Your task to perform on an android device: Open wifi settings Image 0: 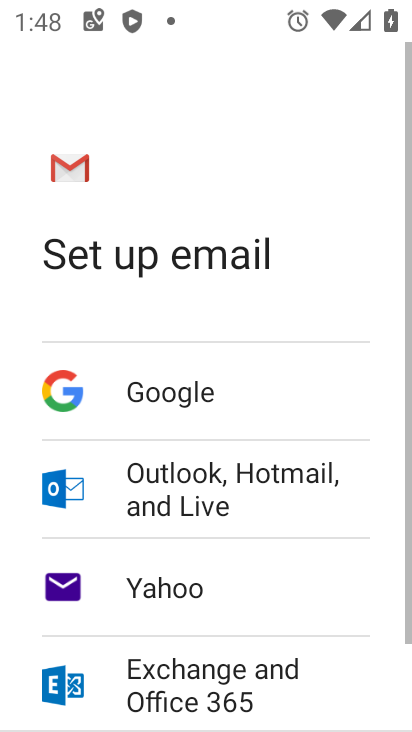
Step 0: press home button
Your task to perform on an android device: Open wifi settings Image 1: 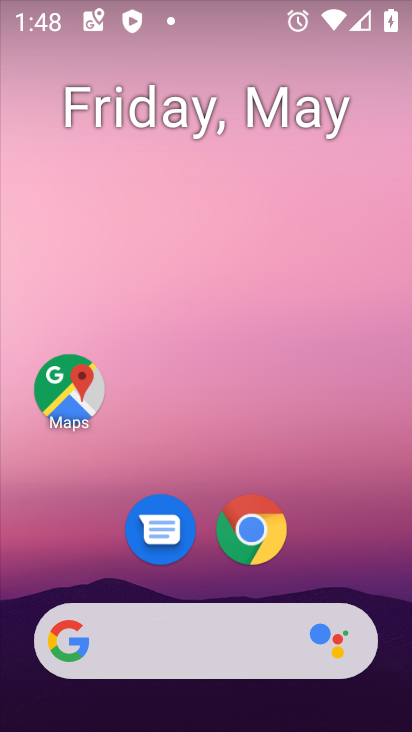
Step 1: drag from (395, 693) to (365, 253)
Your task to perform on an android device: Open wifi settings Image 2: 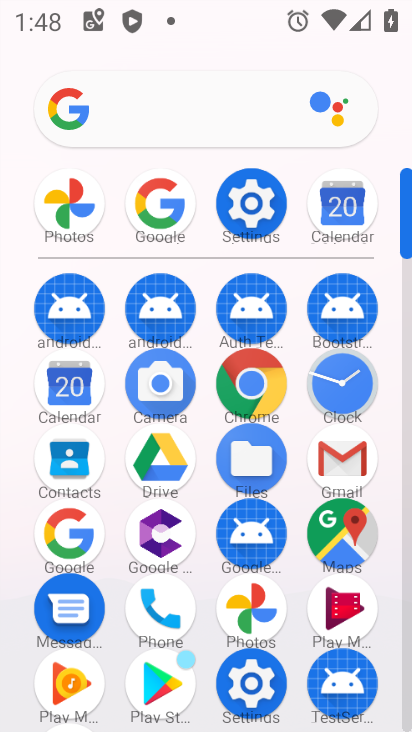
Step 2: click (248, 202)
Your task to perform on an android device: Open wifi settings Image 3: 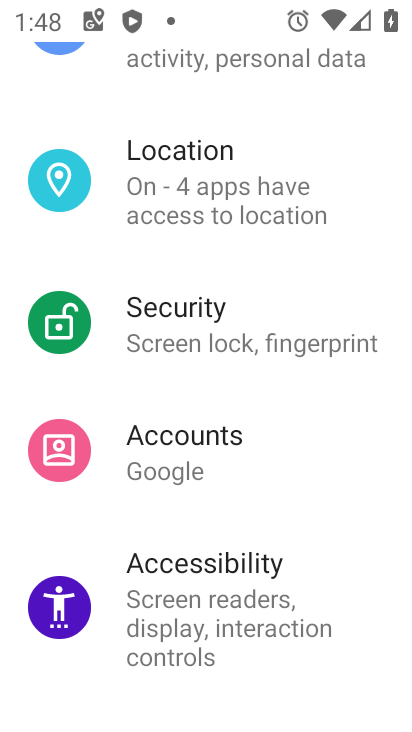
Step 3: drag from (323, 148) to (316, 539)
Your task to perform on an android device: Open wifi settings Image 4: 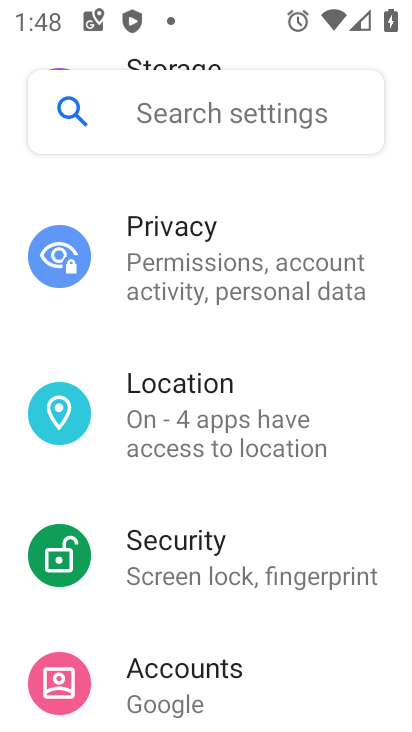
Step 4: drag from (320, 267) to (335, 717)
Your task to perform on an android device: Open wifi settings Image 5: 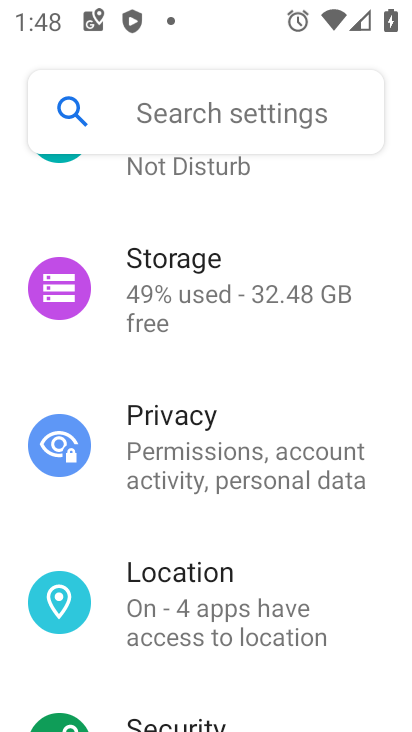
Step 5: drag from (351, 166) to (374, 719)
Your task to perform on an android device: Open wifi settings Image 6: 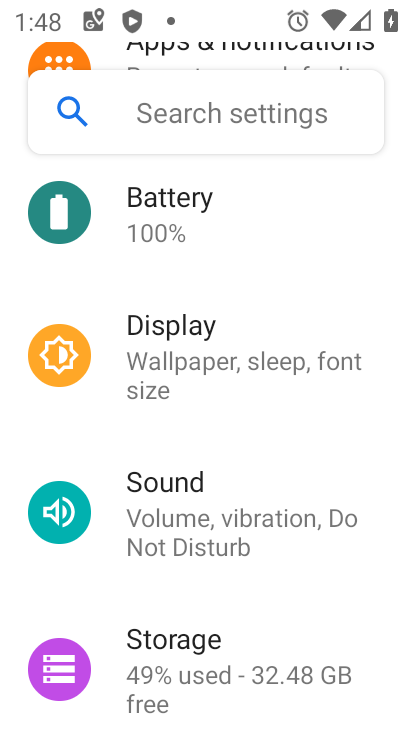
Step 6: drag from (297, 181) to (352, 711)
Your task to perform on an android device: Open wifi settings Image 7: 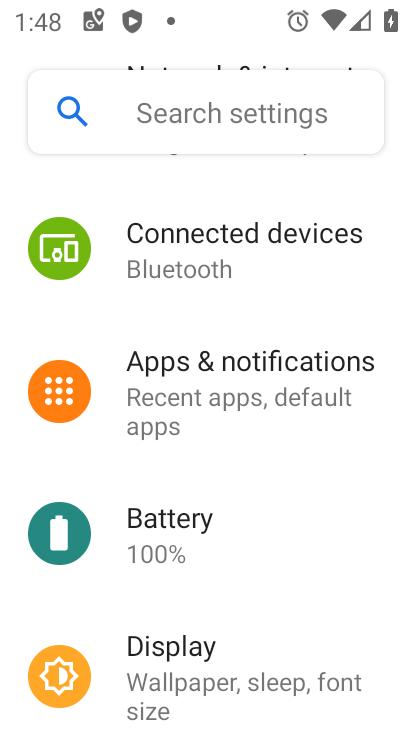
Step 7: drag from (300, 176) to (372, 707)
Your task to perform on an android device: Open wifi settings Image 8: 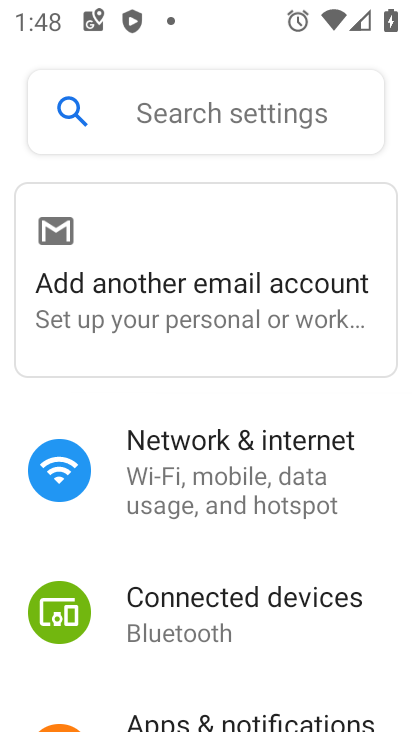
Step 8: click (198, 473)
Your task to perform on an android device: Open wifi settings Image 9: 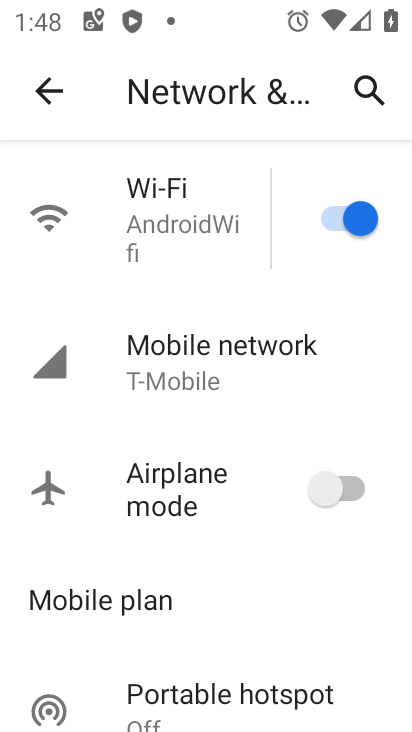
Step 9: click (163, 231)
Your task to perform on an android device: Open wifi settings Image 10: 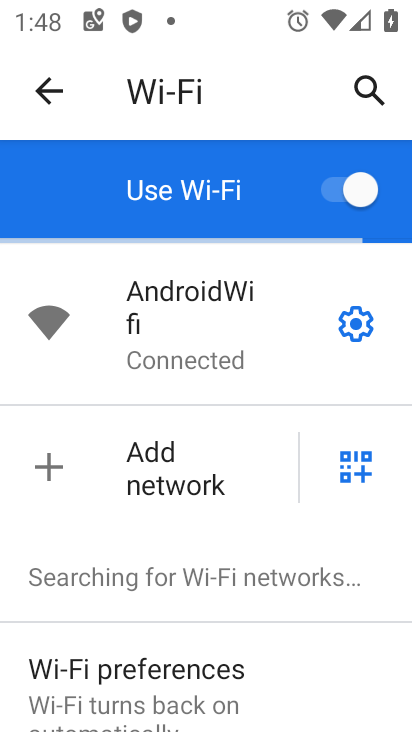
Step 10: click (348, 327)
Your task to perform on an android device: Open wifi settings Image 11: 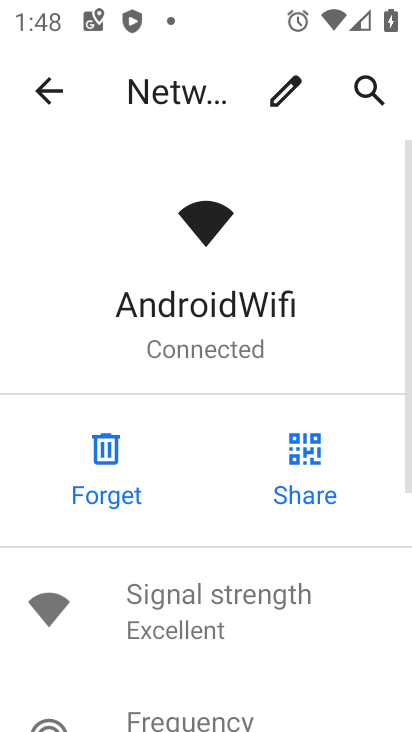
Step 11: task complete